Your task to perform on an android device: Go to accessibility settings Image 0: 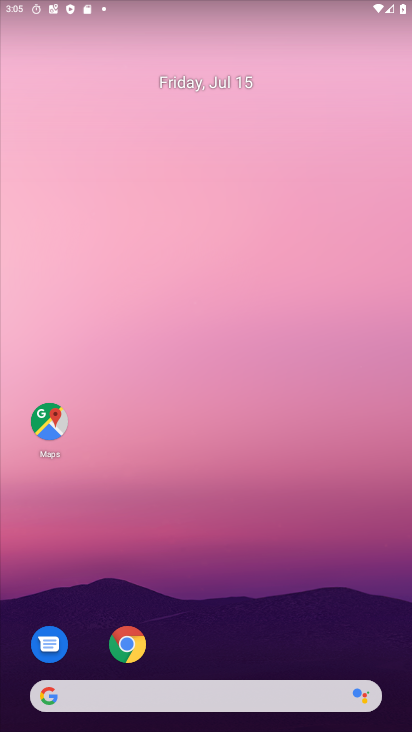
Step 0: drag from (187, 576) to (247, 3)
Your task to perform on an android device: Go to accessibility settings Image 1: 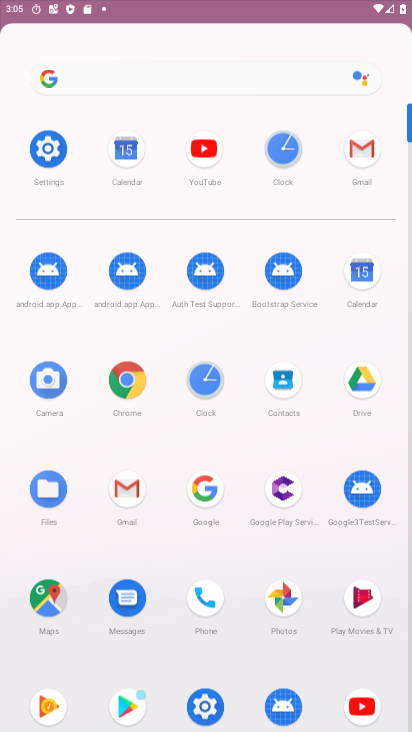
Step 1: click (42, 200)
Your task to perform on an android device: Go to accessibility settings Image 2: 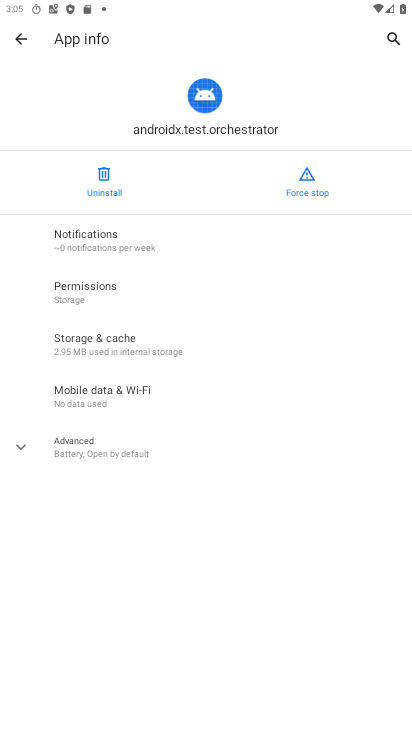
Step 2: click (11, 36)
Your task to perform on an android device: Go to accessibility settings Image 3: 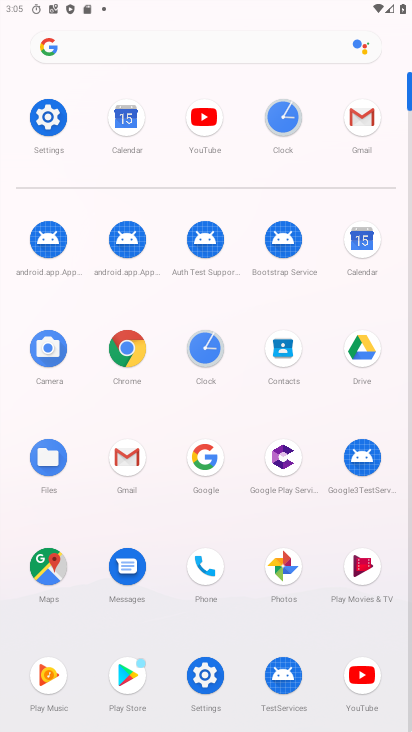
Step 3: click (46, 97)
Your task to perform on an android device: Go to accessibility settings Image 4: 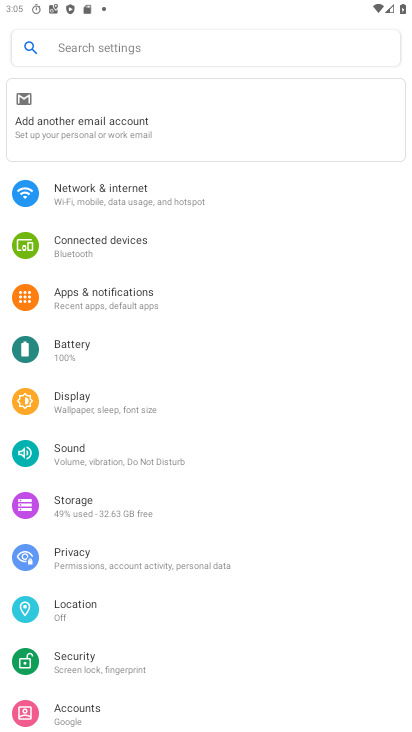
Step 4: drag from (122, 567) to (182, 122)
Your task to perform on an android device: Go to accessibility settings Image 5: 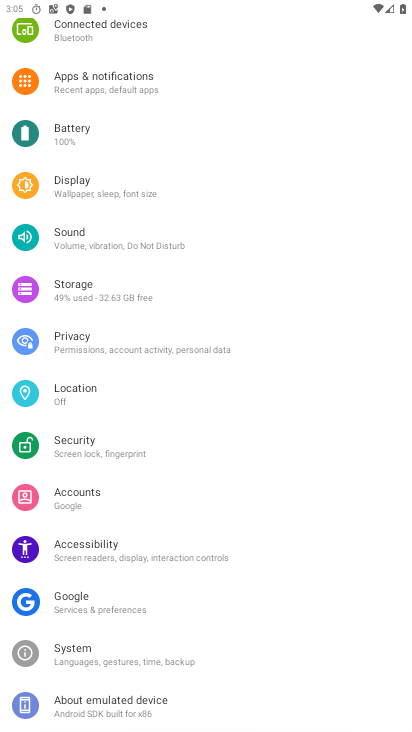
Step 5: click (108, 551)
Your task to perform on an android device: Go to accessibility settings Image 6: 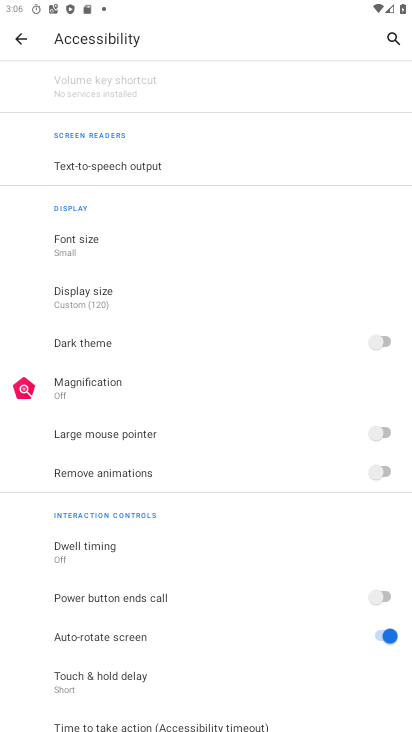
Step 6: task complete